Your task to perform on an android device: Do I have any events tomorrow? Image 0: 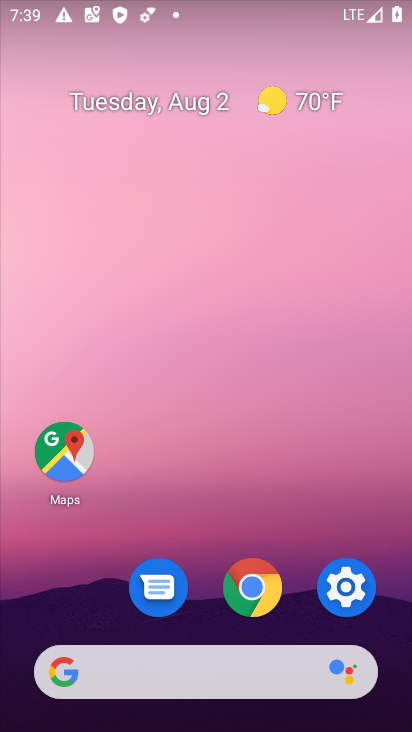
Step 0: press home button
Your task to perform on an android device: Do I have any events tomorrow? Image 1: 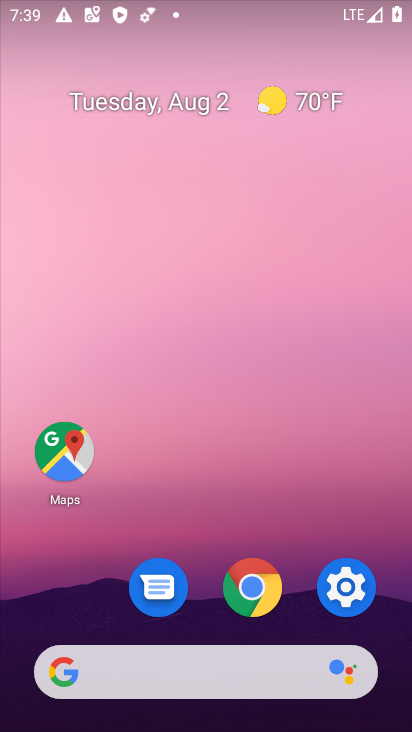
Step 1: drag from (240, 663) to (187, 270)
Your task to perform on an android device: Do I have any events tomorrow? Image 2: 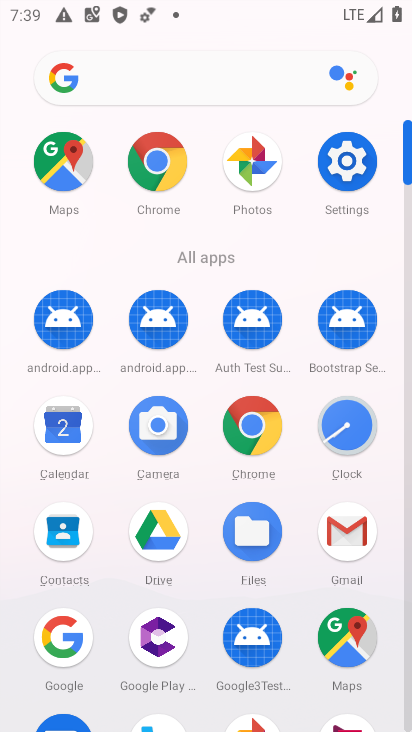
Step 2: click (51, 444)
Your task to perform on an android device: Do I have any events tomorrow? Image 3: 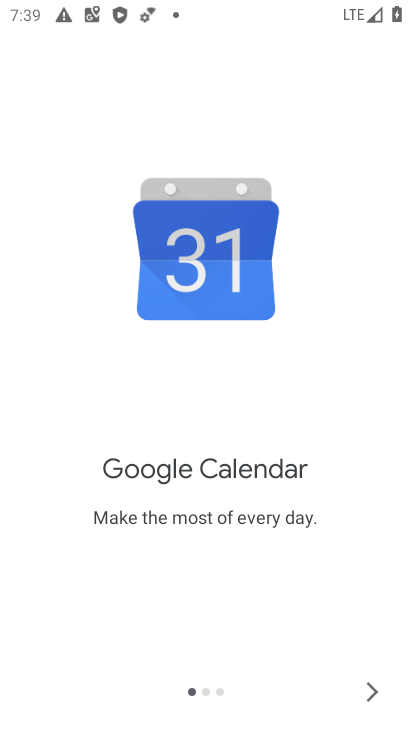
Step 3: click (374, 692)
Your task to perform on an android device: Do I have any events tomorrow? Image 4: 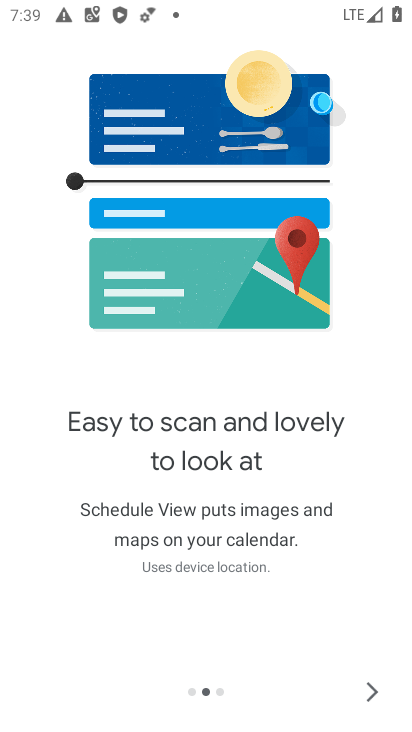
Step 4: click (374, 692)
Your task to perform on an android device: Do I have any events tomorrow? Image 5: 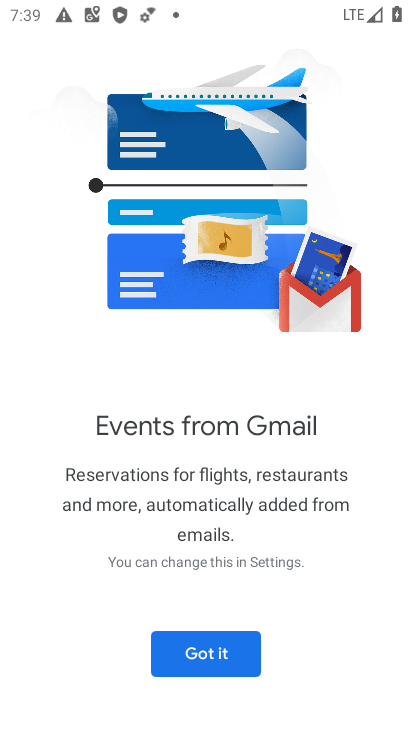
Step 5: click (211, 642)
Your task to perform on an android device: Do I have any events tomorrow? Image 6: 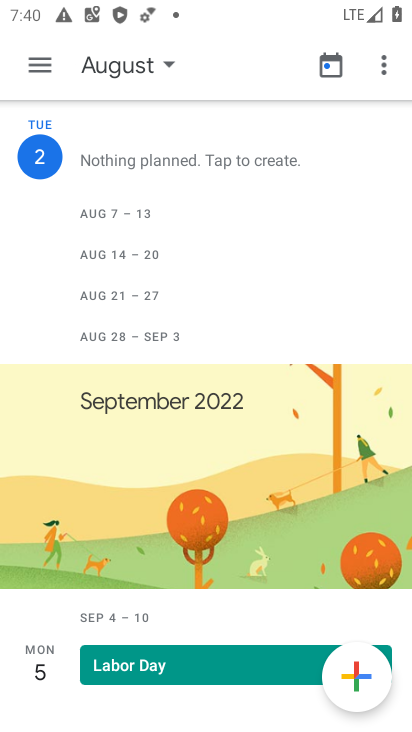
Step 6: click (38, 71)
Your task to perform on an android device: Do I have any events tomorrow? Image 7: 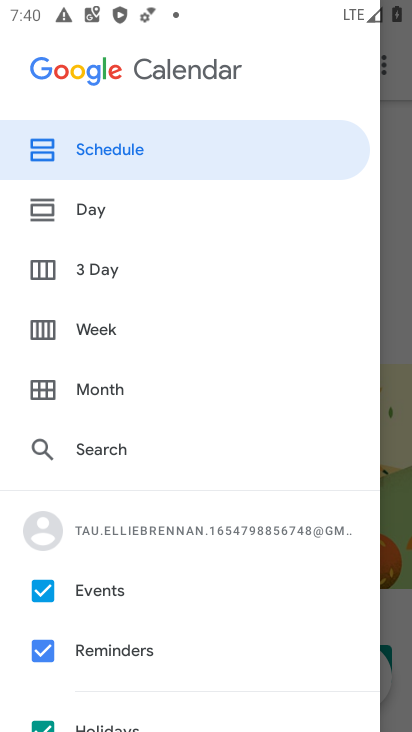
Step 7: click (123, 378)
Your task to perform on an android device: Do I have any events tomorrow? Image 8: 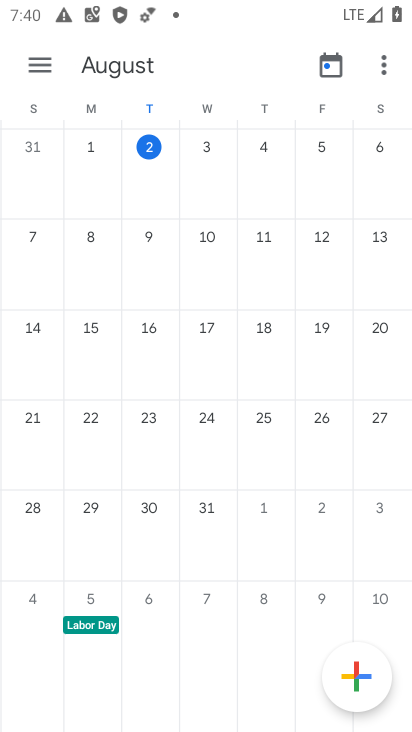
Step 8: click (218, 176)
Your task to perform on an android device: Do I have any events tomorrow? Image 9: 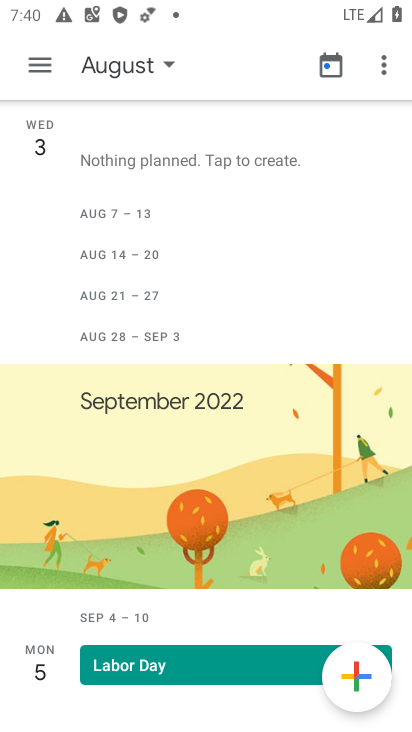
Step 9: task complete